Your task to perform on an android device: check the backup settings in the google photos Image 0: 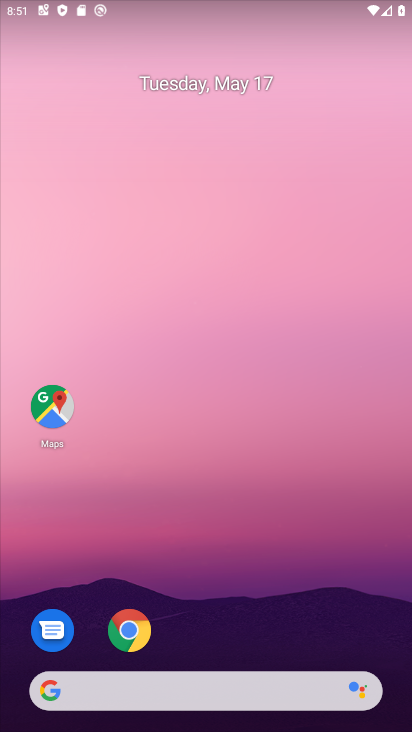
Step 0: drag from (198, 639) to (172, 177)
Your task to perform on an android device: check the backup settings in the google photos Image 1: 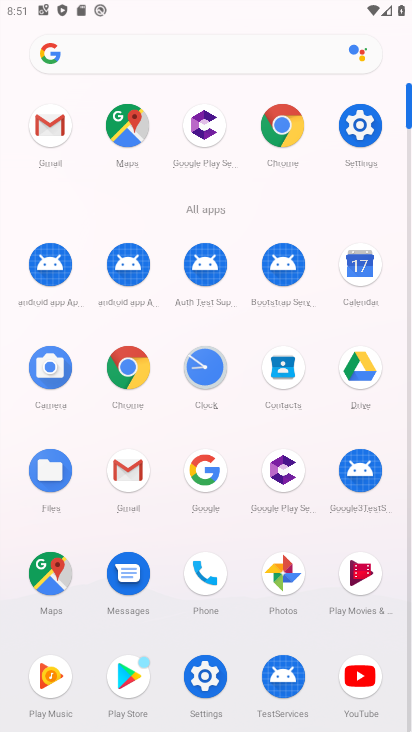
Step 1: click (289, 582)
Your task to perform on an android device: check the backup settings in the google photos Image 2: 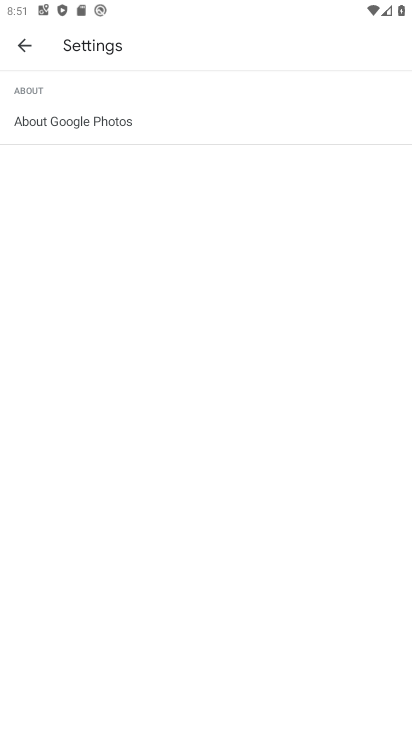
Step 2: click (19, 38)
Your task to perform on an android device: check the backup settings in the google photos Image 3: 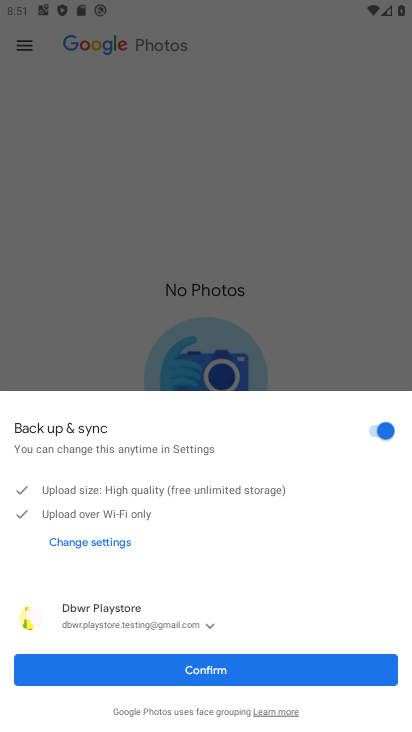
Step 3: click (103, 541)
Your task to perform on an android device: check the backup settings in the google photos Image 4: 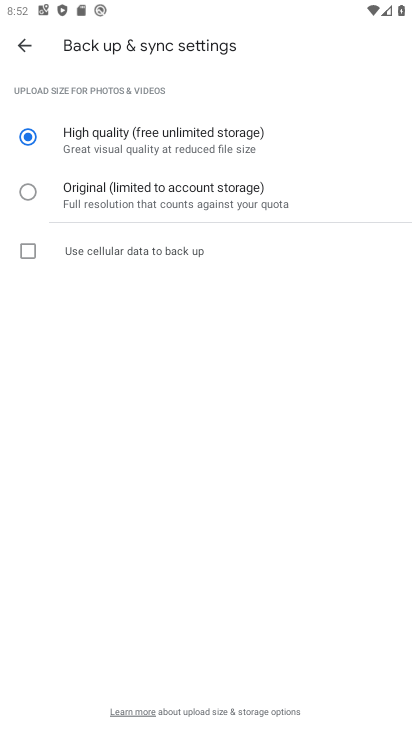
Step 4: task complete